Your task to perform on an android device: open a bookmark in the chrome app Image 0: 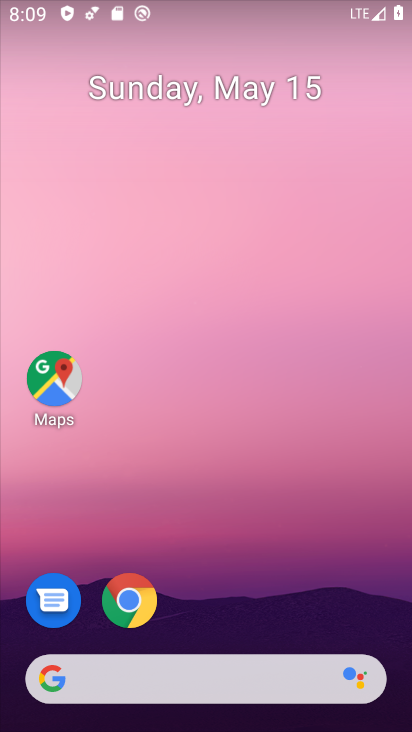
Step 0: click (142, 609)
Your task to perform on an android device: open a bookmark in the chrome app Image 1: 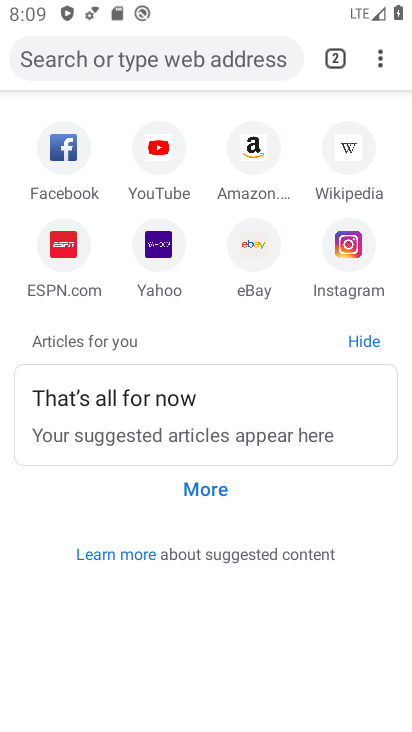
Step 1: click (378, 59)
Your task to perform on an android device: open a bookmark in the chrome app Image 2: 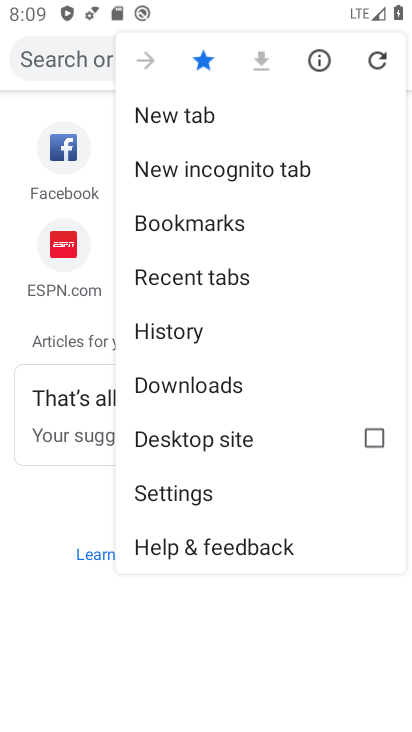
Step 2: click (172, 227)
Your task to perform on an android device: open a bookmark in the chrome app Image 3: 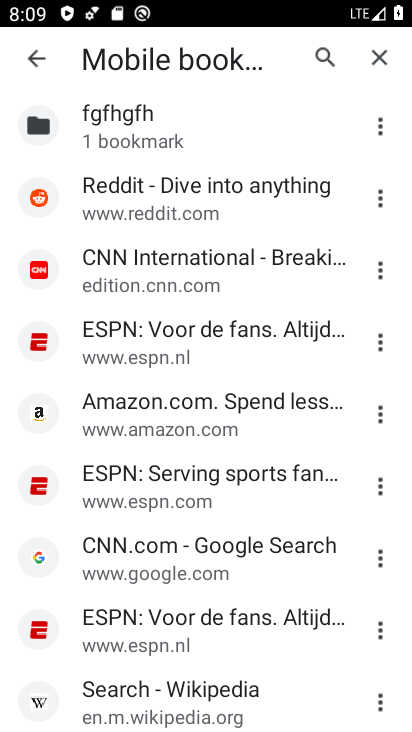
Step 3: task complete